Your task to perform on an android device: manage bookmarks in the chrome app Image 0: 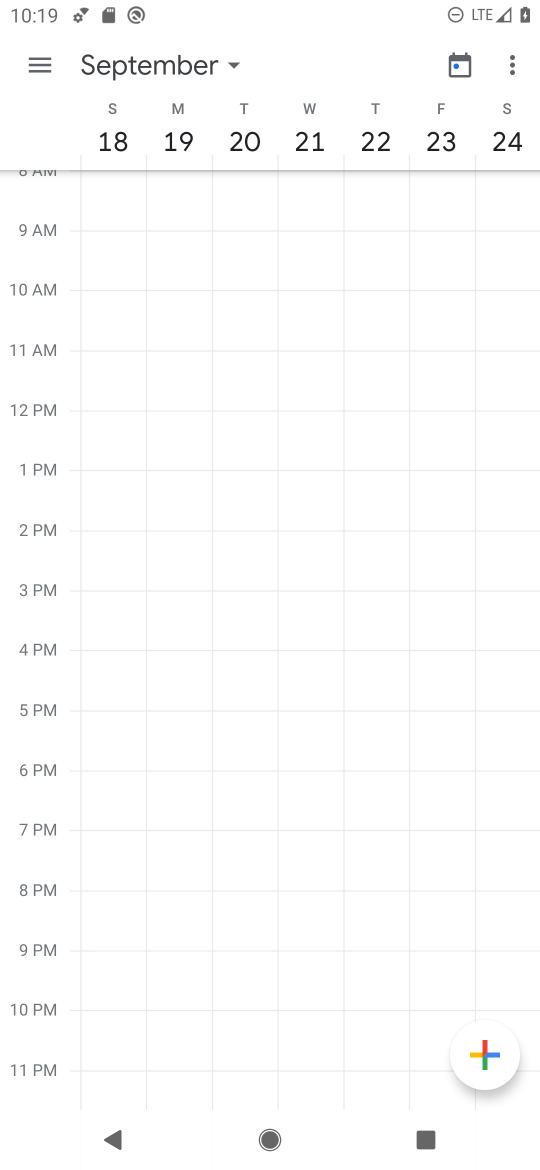
Step 0: press home button
Your task to perform on an android device: manage bookmarks in the chrome app Image 1: 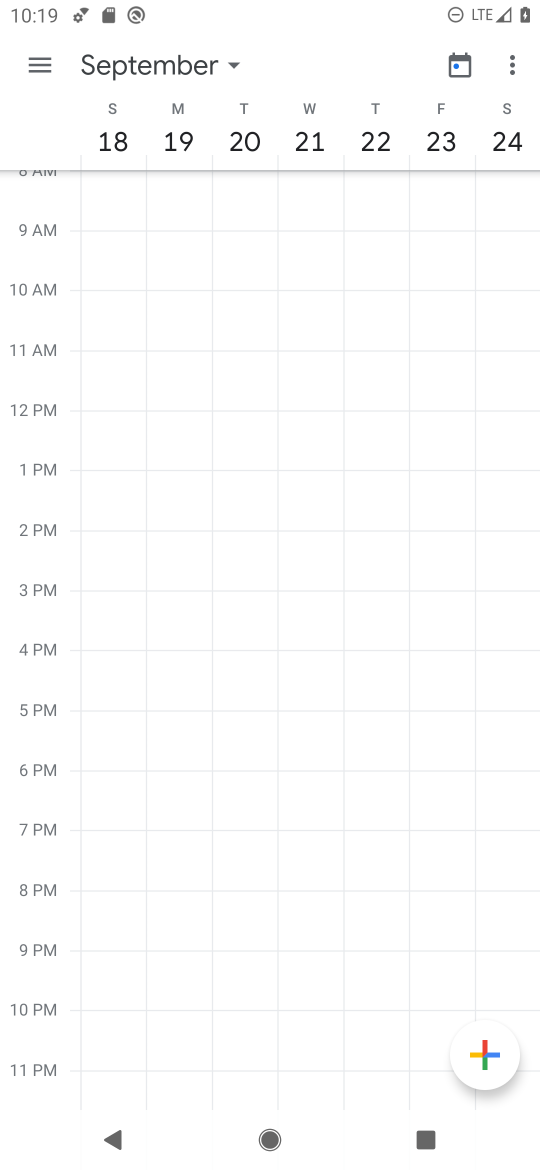
Step 1: press home button
Your task to perform on an android device: manage bookmarks in the chrome app Image 2: 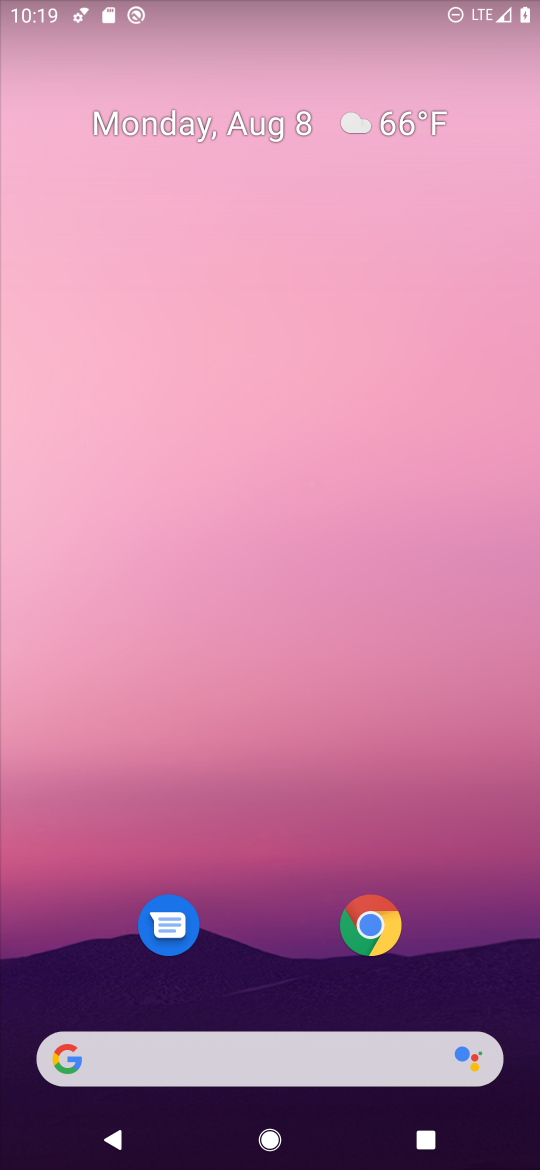
Step 2: click (381, 928)
Your task to perform on an android device: manage bookmarks in the chrome app Image 3: 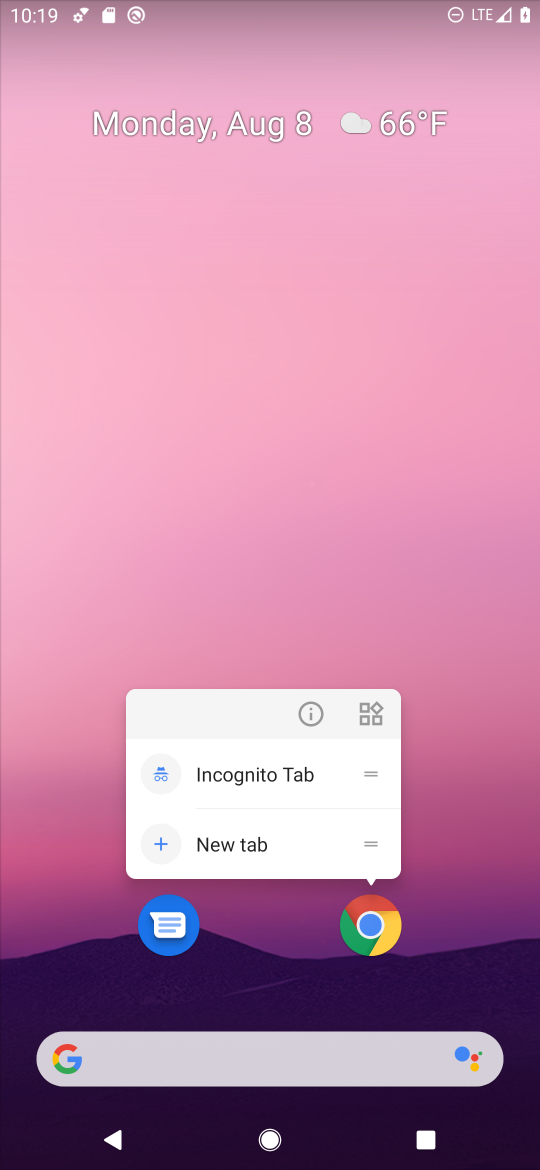
Step 3: click (381, 928)
Your task to perform on an android device: manage bookmarks in the chrome app Image 4: 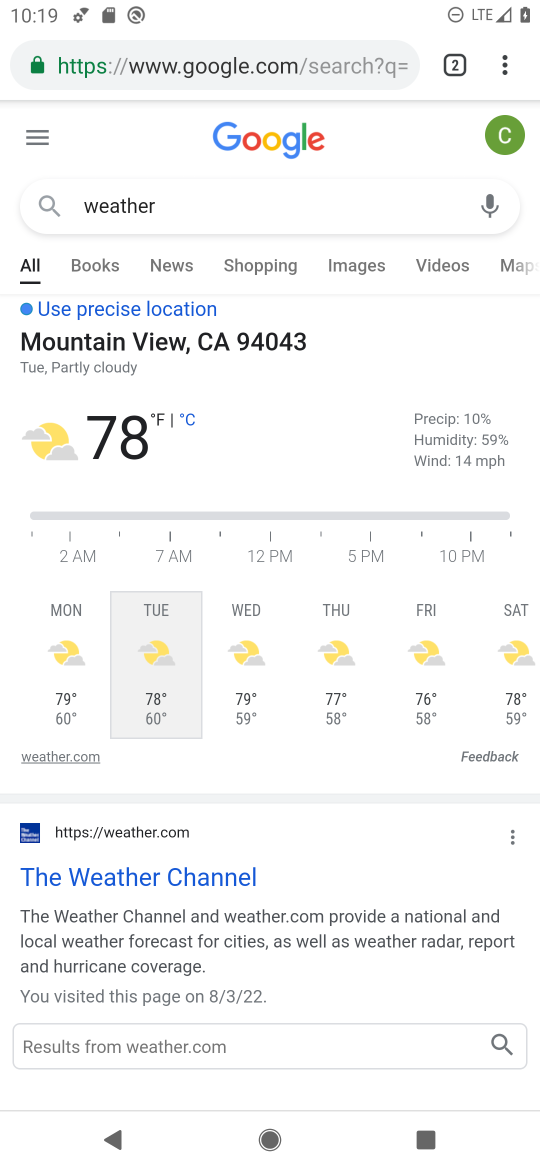
Step 4: drag from (498, 54) to (292, 348)
Your task to perform on an android device: manage bookmarks in the chrome app Image 5: 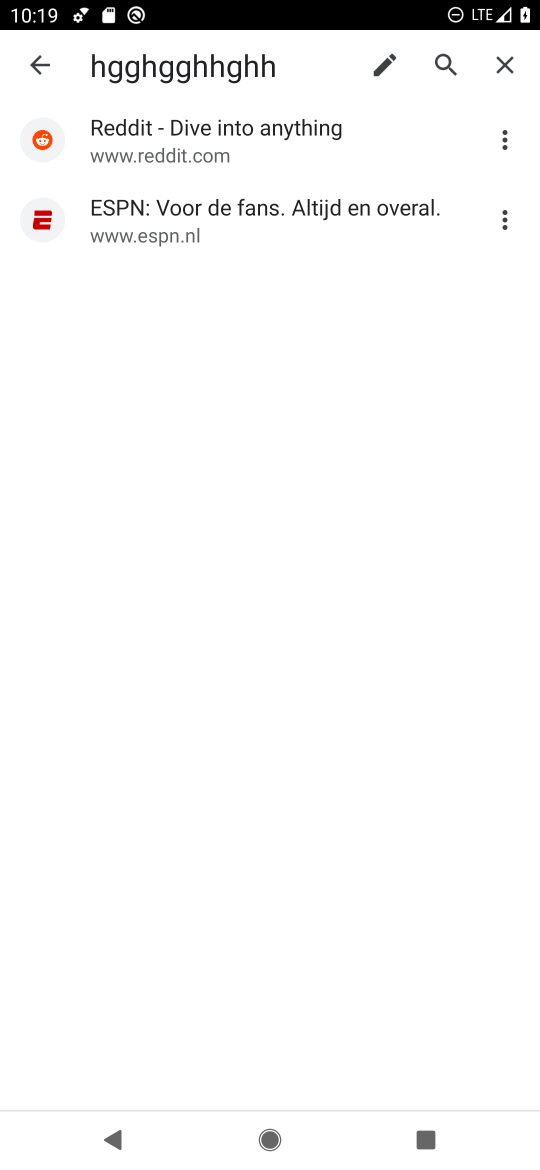
Step 5: click (502, 214)
Your task to perform on an android device: manage bookmarks in the chrome app Image 6: 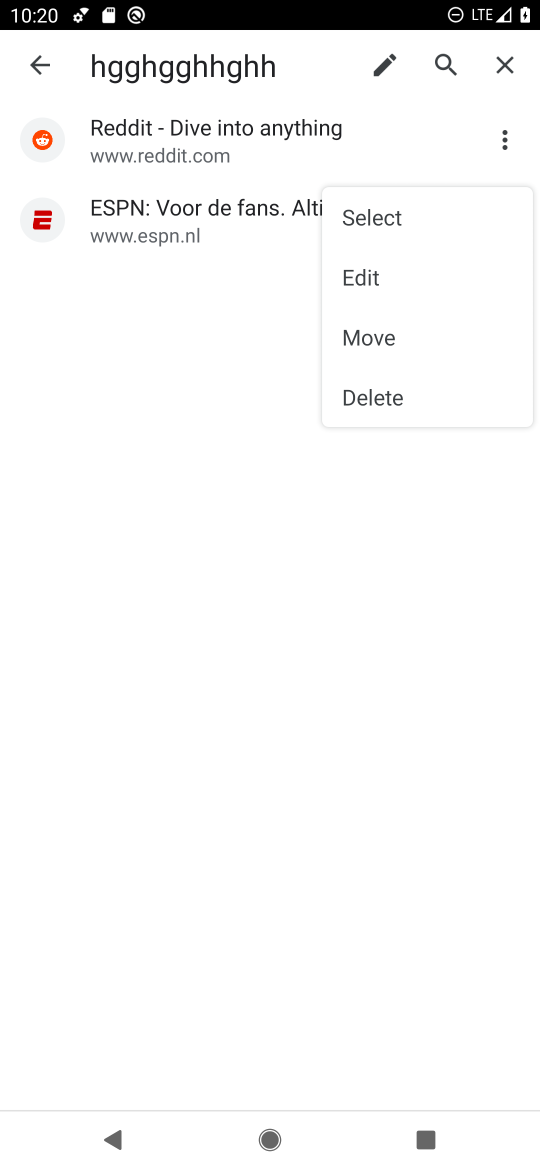
Step 6: click (403, 287)
Your task to perform on an android device: manage bookmarks in the chrome app Image 7: 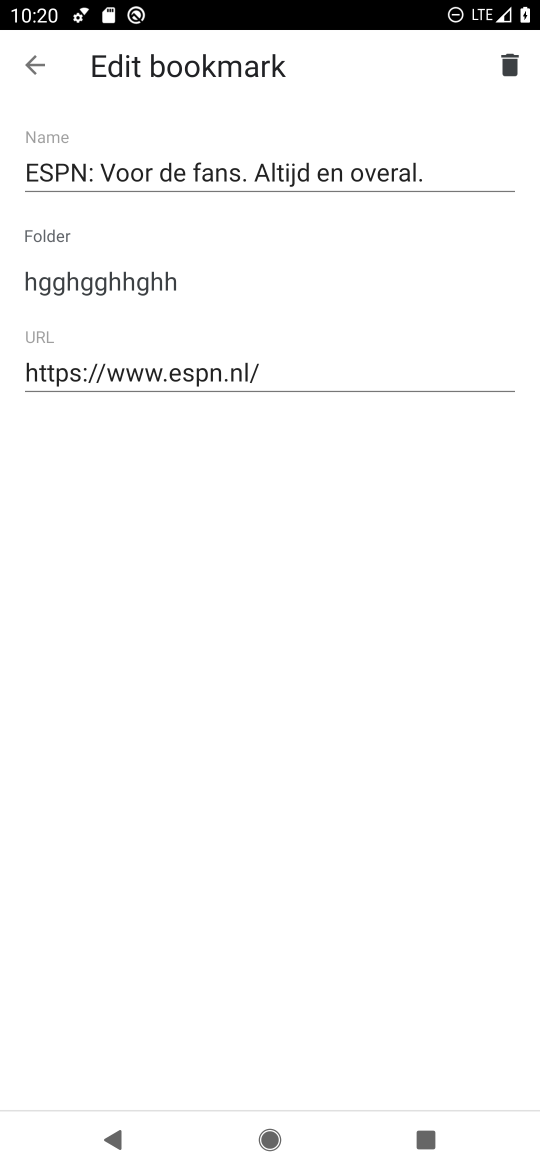
Step 7: click (450, 166)
Your task to perform on an android device: manage bookmarks in the chrome app Image 8: 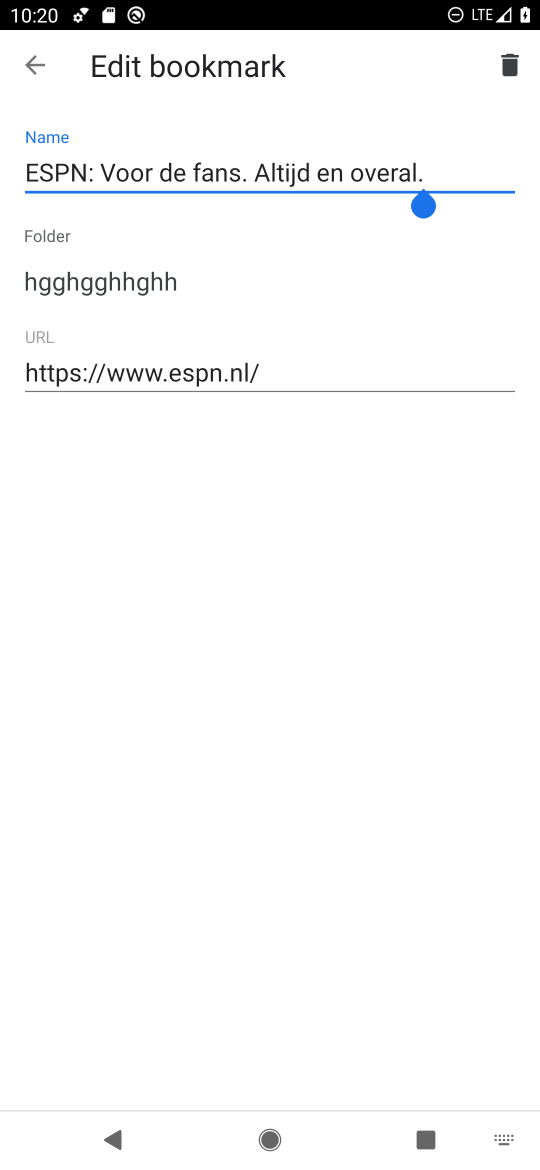
Step 8: click (422, 166)
Your task to perform on an android device: manage bookmarks in the chrome app Image 9: 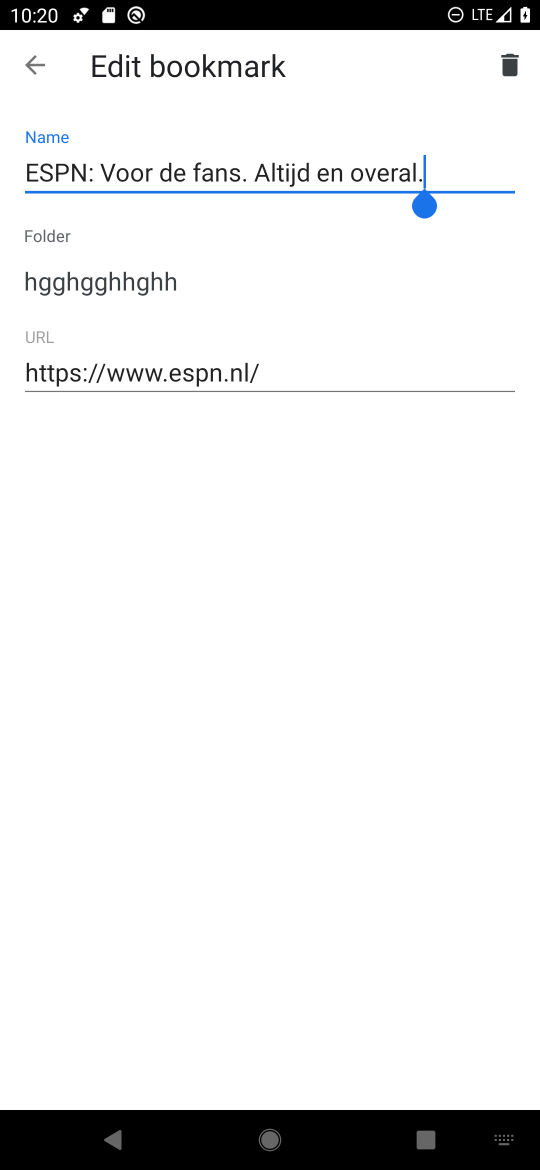
Step 9: type "j"
Your task to perform on an android device: manage bookmarks in the chrome app Image 10: 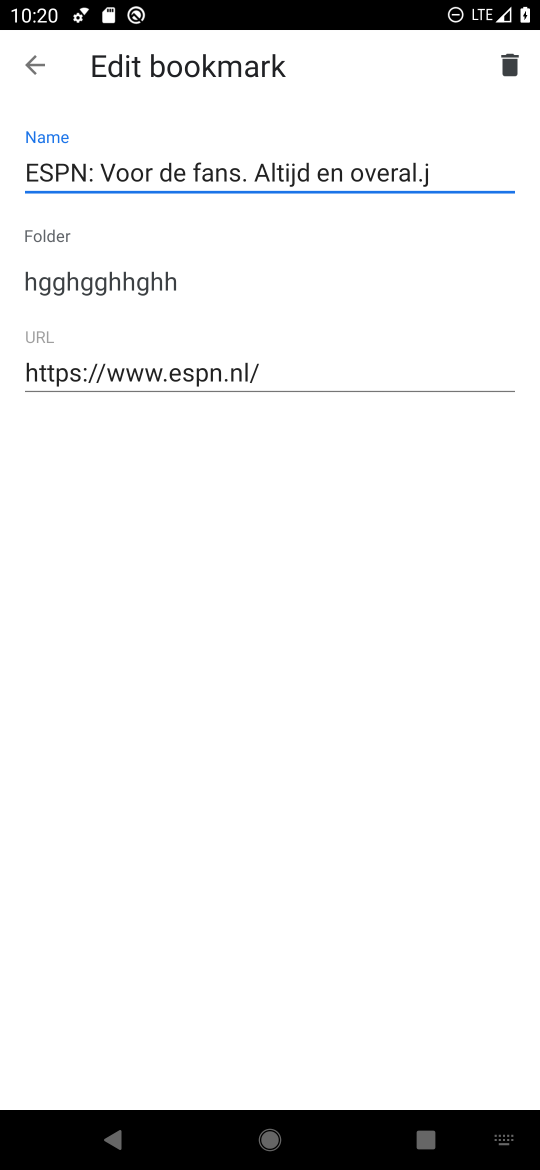
Step 10: click (18, 66)
Your task to perform on an android device: manage bookmarks in the chrome app Image 11: 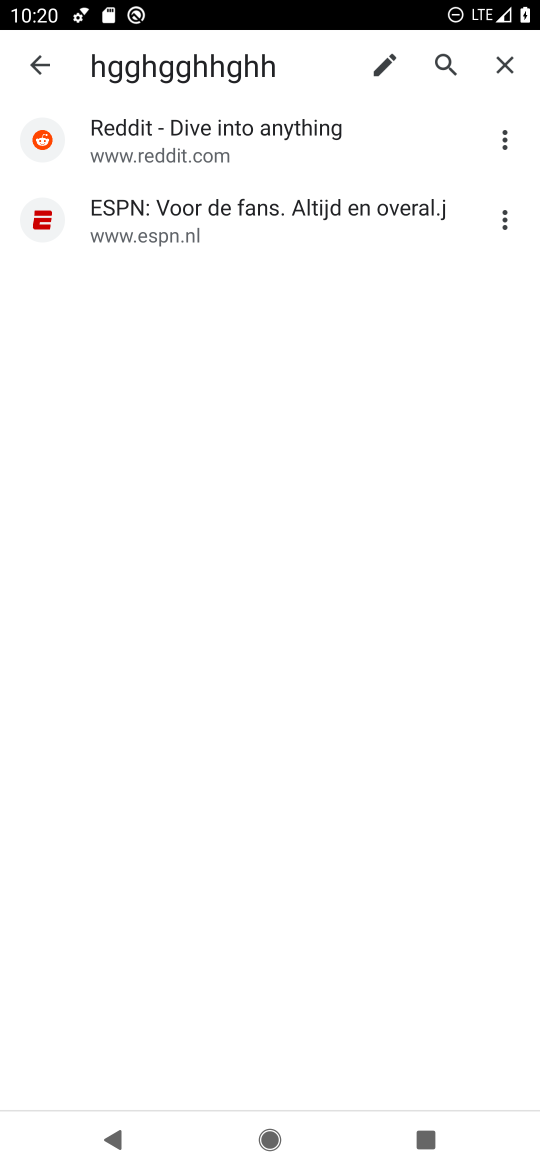
Step 11: task complete